Your task to perform on an android device: open the mobile data screen to see how much data has been used Image 0: 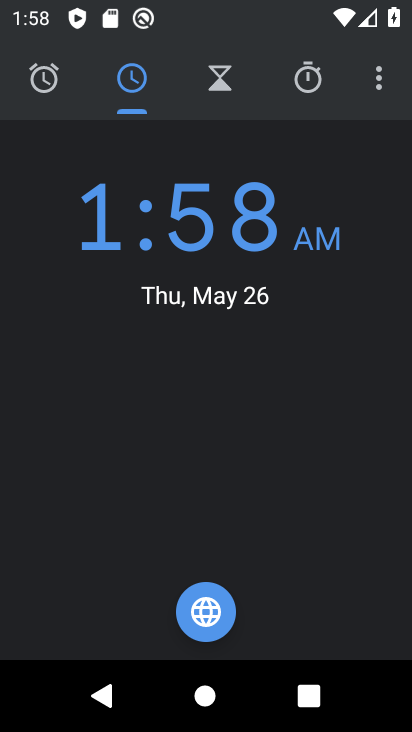
Step 0: press home button
Your task to perform on an android device: open the mobile data screen to see how much data has been used Image 1: 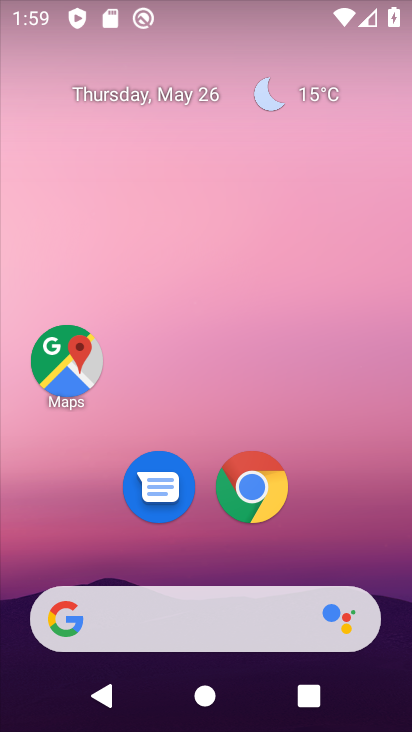
Step 1: drag from (212, 558) to (219, 200)
Your task to perform on an android device: open the mobile data screen to see how much data has been used Image 2: 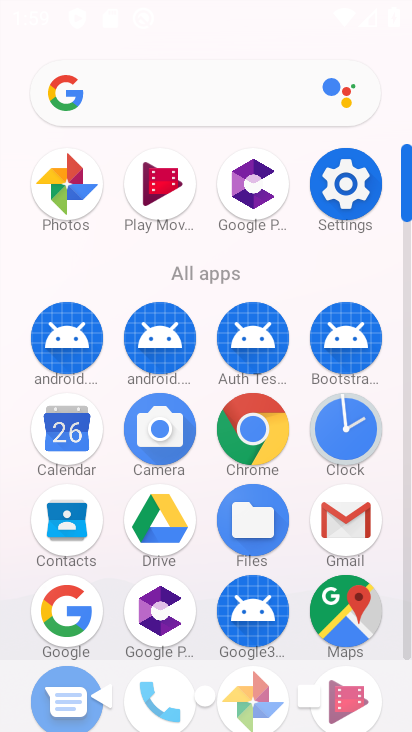
Step 2: click (346, 192)
Your task to perform on an android device: open the mobile data screen to see how much data has been used Image 3: 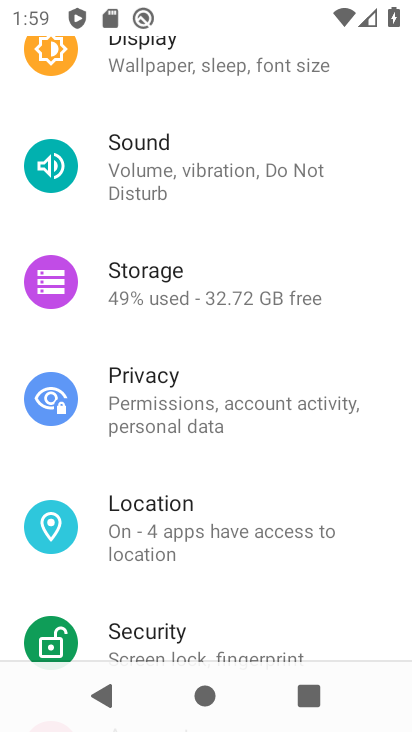
Step 3: drag from (211, 187) to (213, 496)
Your task to perform on an android device: open the mobile data screen to see how much data has been used Image 4: 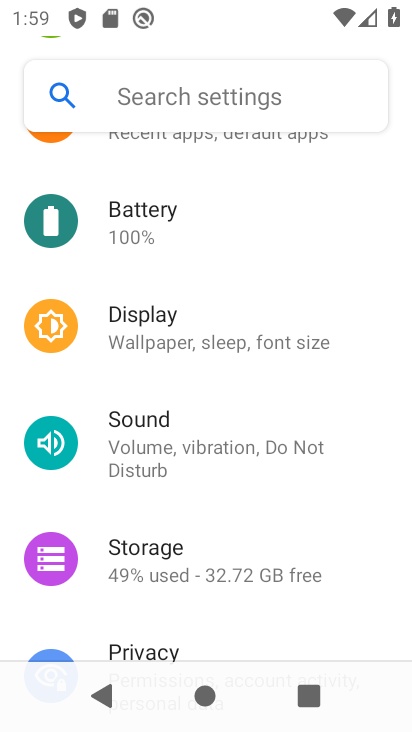
Step 4: drag from (176, 221) to (188, 423)
Your task to perform on an android device: open the mobile data screen to see how much data has been used Image 5: 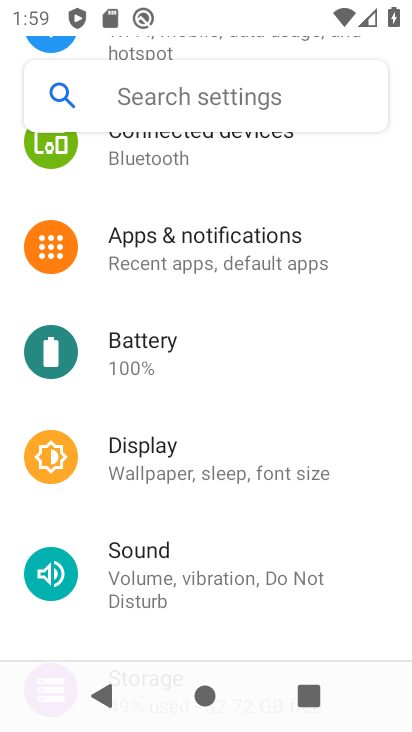
Step 5: drag from (188, 229) to (188, 420)
Your task to perform on an android device: open the mobile data screen to see how much data has been used Image 6: 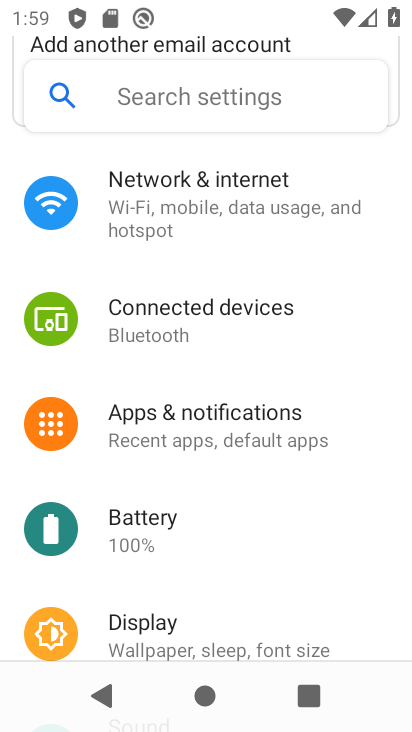
Step 6: click (182, 241)
Your task to perform on an android device: open the mobile data screen to see how much data has been used Image 7: 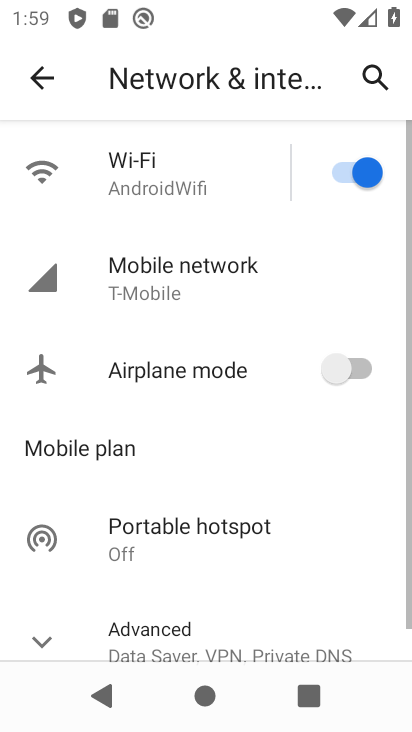
Step 7: click (168, 286)
Your task to perform on an android device: open the mobile data screen to see how much data has been used Image 8: 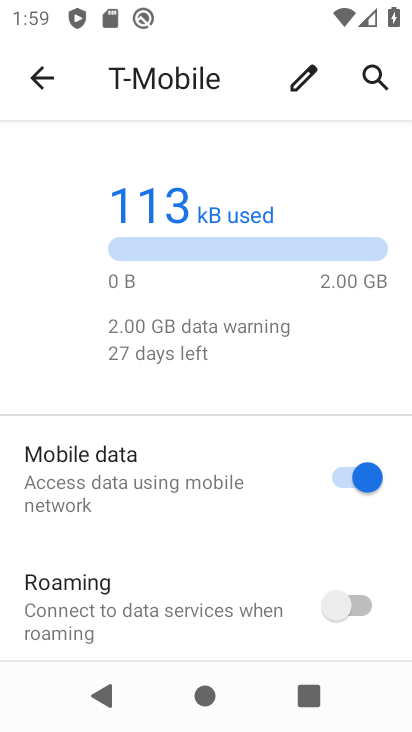
Step 8: drag from (187, 522) to (187, 319)
Your task to perform on an android device: open the mobile data screen to see how much data has been used Image 9: 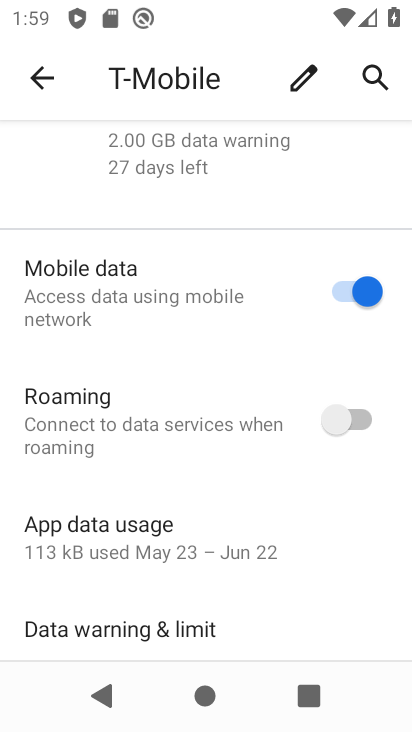
Step 9: click (183, 514)
Your task to perform on an android device: open the mobile data screen to see how much data has been used Image 10: 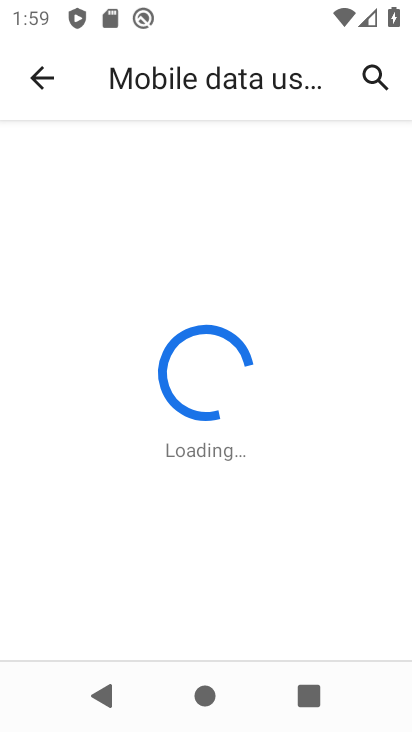
Step 10: task complete